Your task to perform on an android device: Open ESPN.com Image 0: 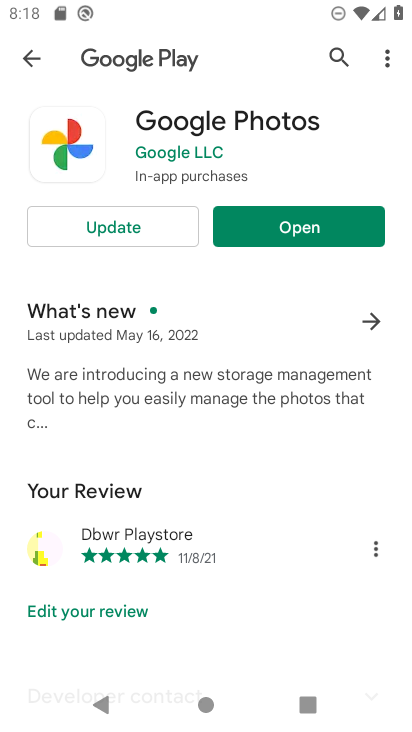
Step 0: press home button
Your task to perform on an android device: Open ESPN.com Image 1: 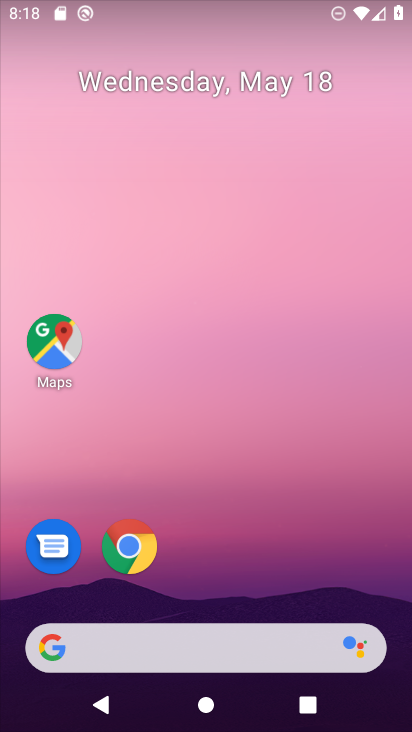
Step 1: drag from (261, 672) to (264, 160)
Your task to perform on an android device: Open ESPN.com Image 2: 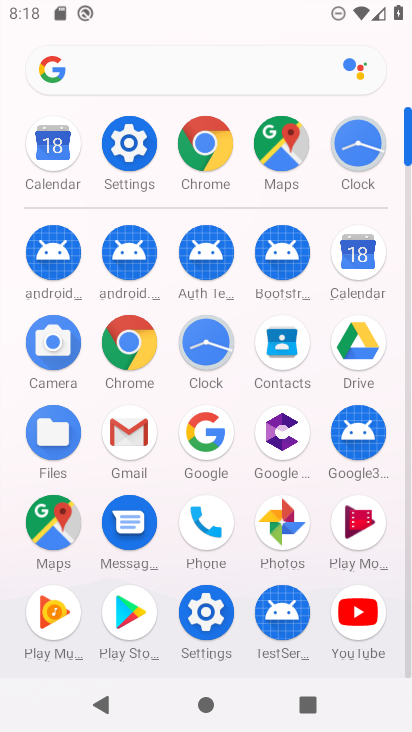
Step 2: click (201, 148)
Your task to perform on an android device: Open ESPN.com Image 3: 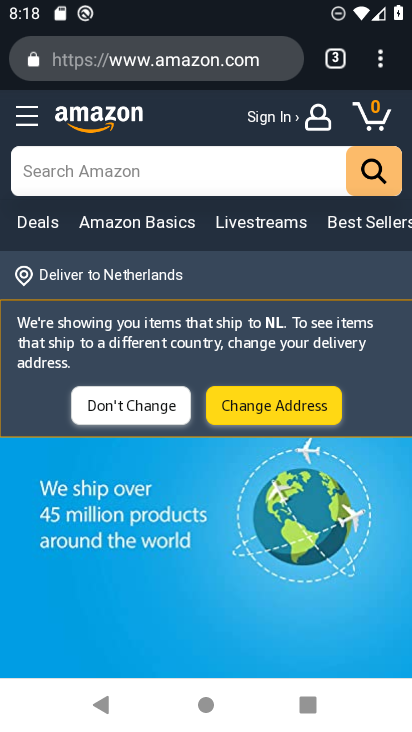
Step 3: click (182, 62)
Your task to perform on an android device: Open ESPN.com Image 4: 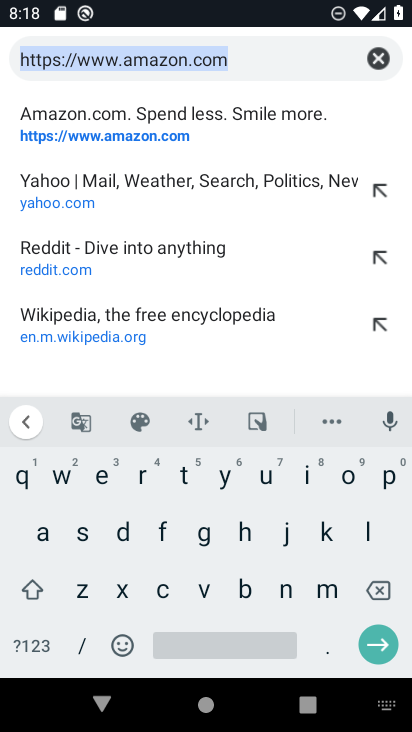
Step 4: click (96, 478)
Your task to perform on an android device: Open ESPN.com Image 5: 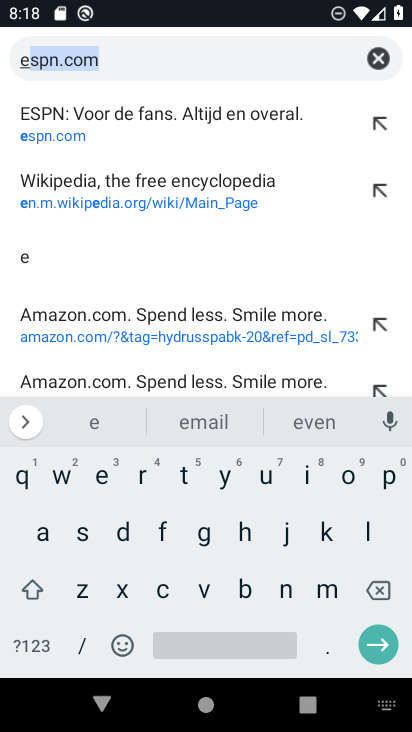
Step 5: click (121, 65)
Your task to perform on an android device: Open ESPN.com Image 6: 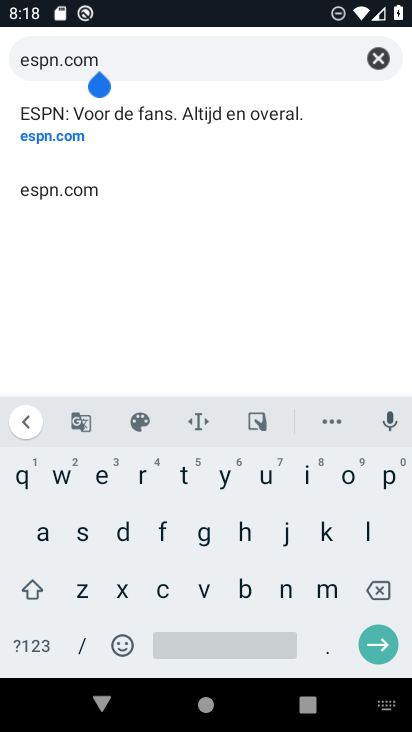
Step 6: click (376, 633)
Your task to perform on an android device: Open ESPN.com Image 7: 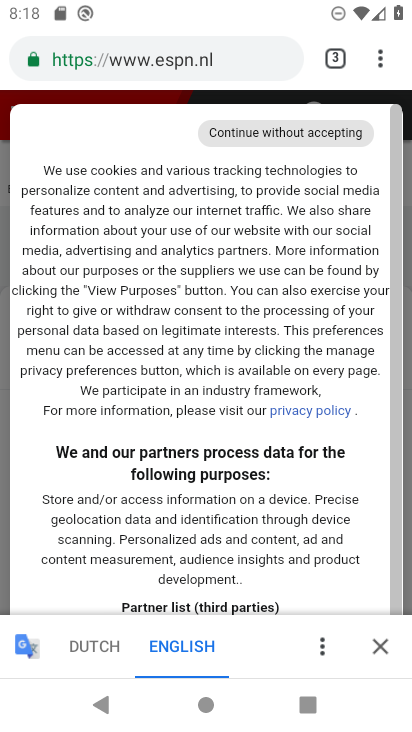
Step 7: drag from (159, 452) to (230, 302)
Your task to perform on an android device: Open ESPN.com Image 8: 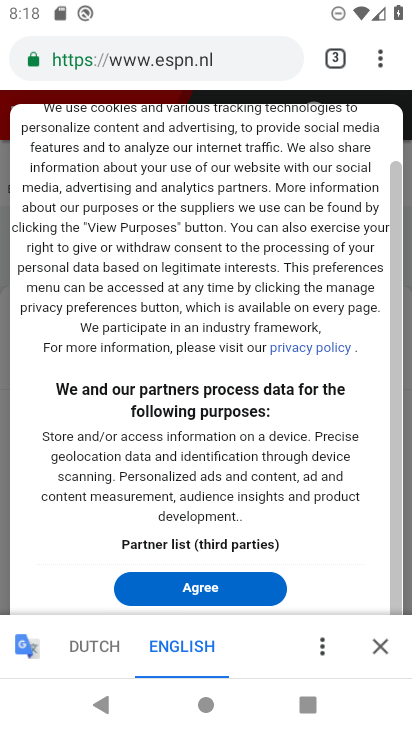
Step 8: click (179, 578)
Your task to perform on an android device: Open ESPN.com Image 9: 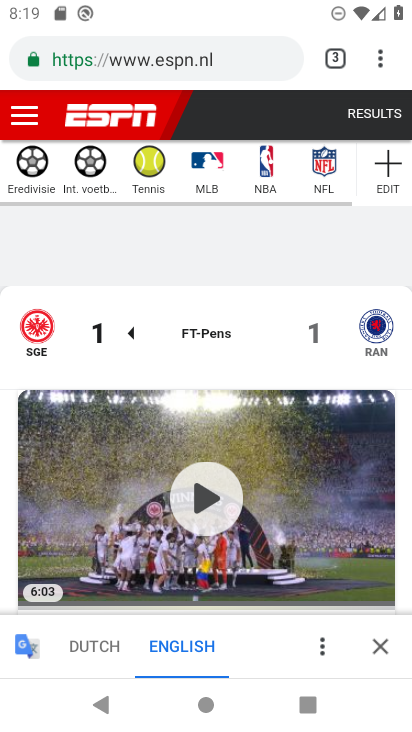
Step 9: task complete